Your task to perform on an android device: Open calendar and show me the third week of next month Image 0: 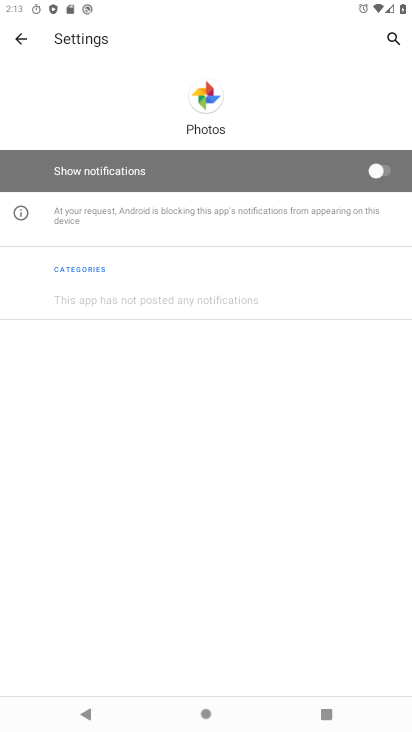
Step 0: press home button
Your task to perform on an android device: Open calendar and show me the third week of next month Image 1: 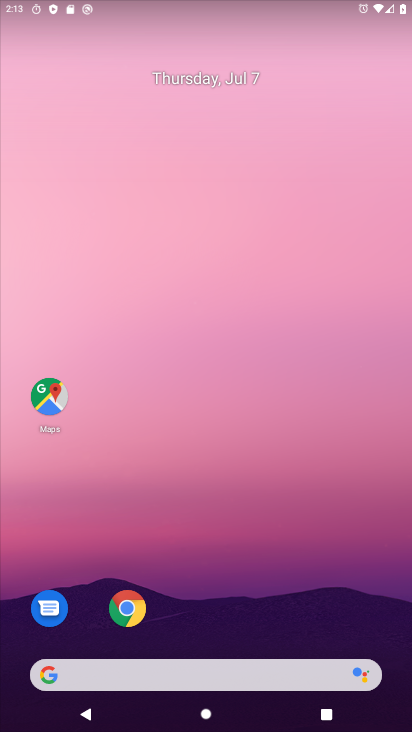
Step 1: drag from (247, 726) to (203, 46)
Your task to perform on an android device: Open calendar and show me the third week of next month Image 2: 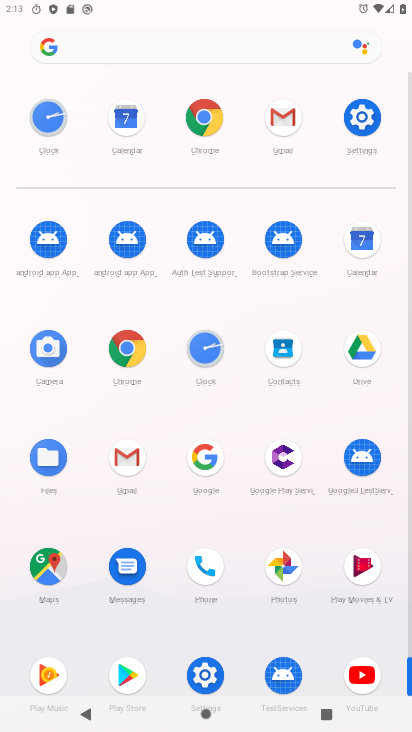
Step 2: click (368, 233)
Your task to perform on an android device: Open calendar and show me the third week of next month Image 3: 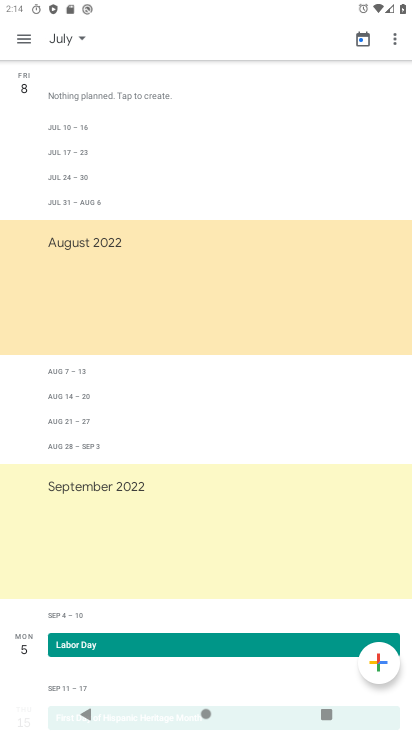
Step 3: click (83, 38)
Your task to perform on an android device: Open calendar and show me the third week of next month Image 4: 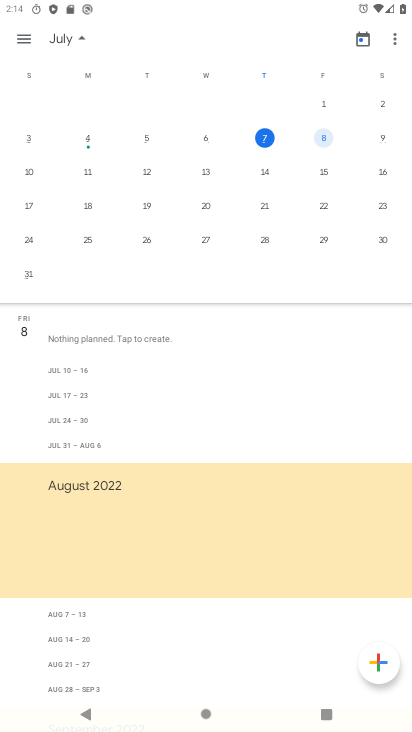
Step 4: drag from (359, 228) to (24, 212)
Your task to perform on an android device: Open calendar and show me the third week of next month Image 5: 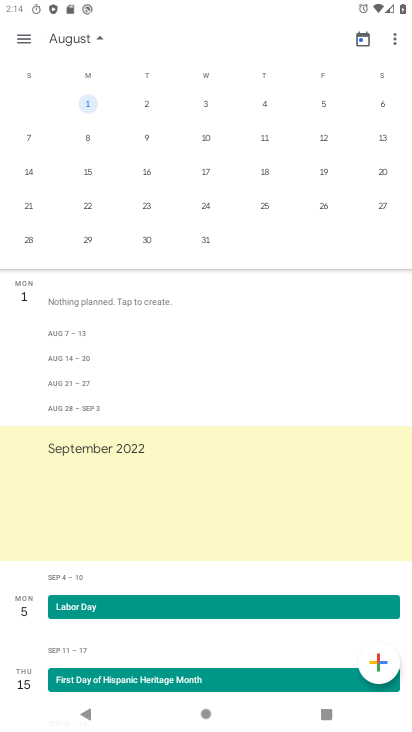
Step 5: click (90, 177)
Your task to perform on an android device: Open calendar and show me the third week of next month Image 6: 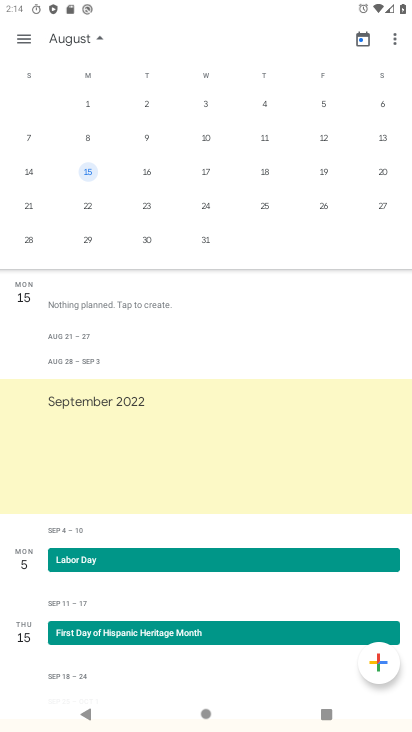
Step 6: click (27, 44)
Your task to perform on an android device: Open calendar and show me the third week of next month Image 7: 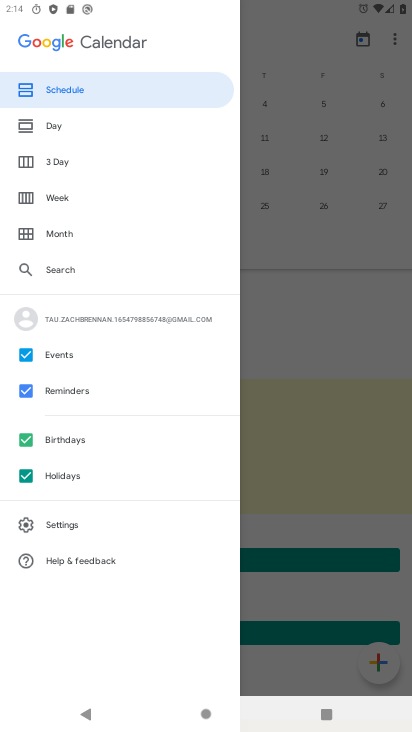
Step 7: click (65, 194)
Your task to perform on an android device: Open calendar and show me the third week of next month Image 8: 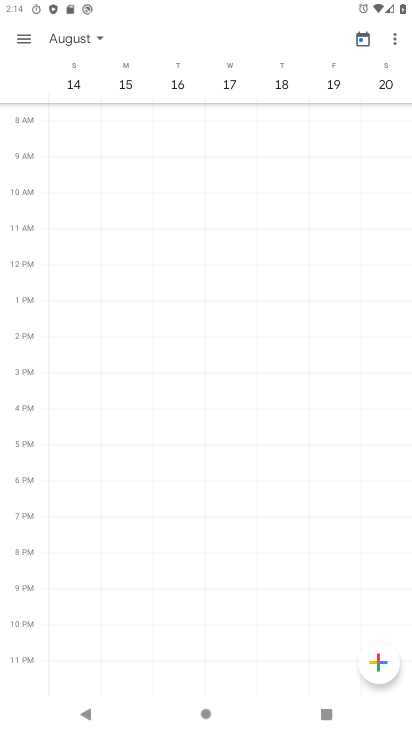
Step 8: task complete